Your task to perform on an android device: Show the shopping cart on walmart. Image 0: 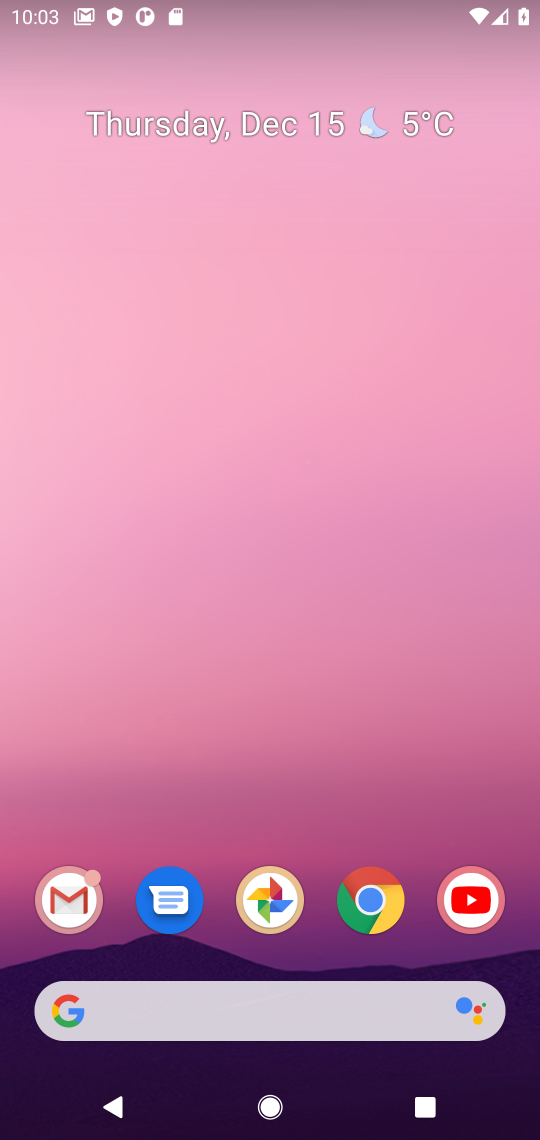
Step 0: click (385, 916)
Your task to perform on an android device: Show the shopping cart on walmart. Image 1: 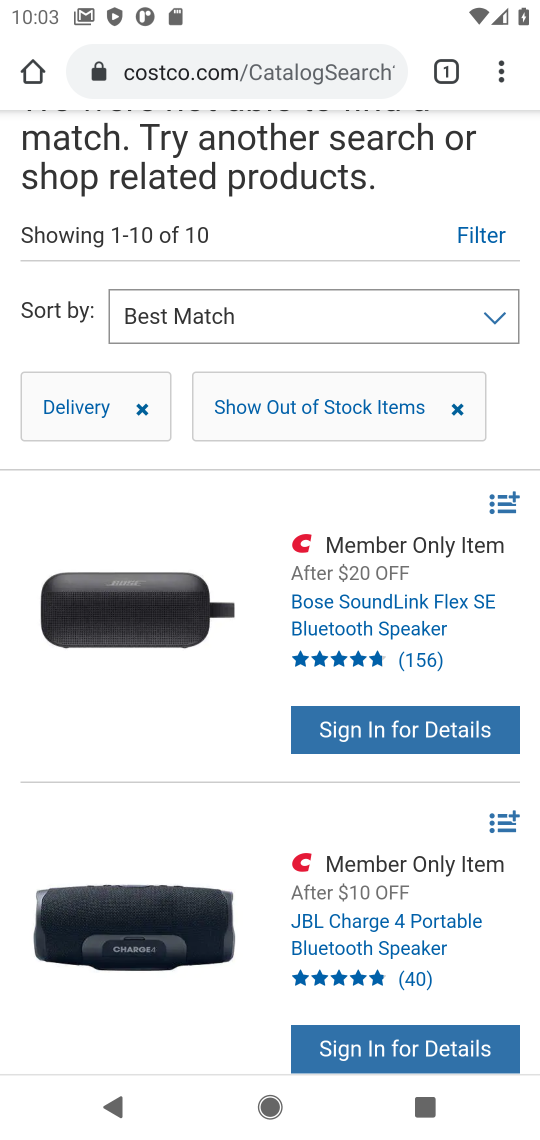
Step 1: click (385, 916)
Your task to perform on an android device: Show the shopping cart on walmart. Image 2: 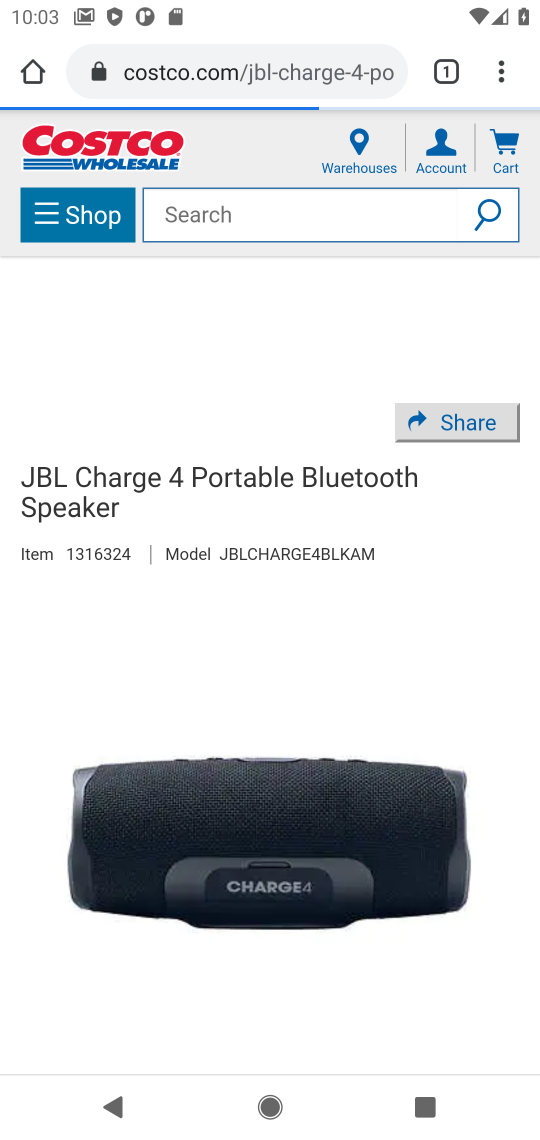
Step 2: click (218, 68)
Your task to perform on an android device: Show the shopping cart on walmart. Image 3: 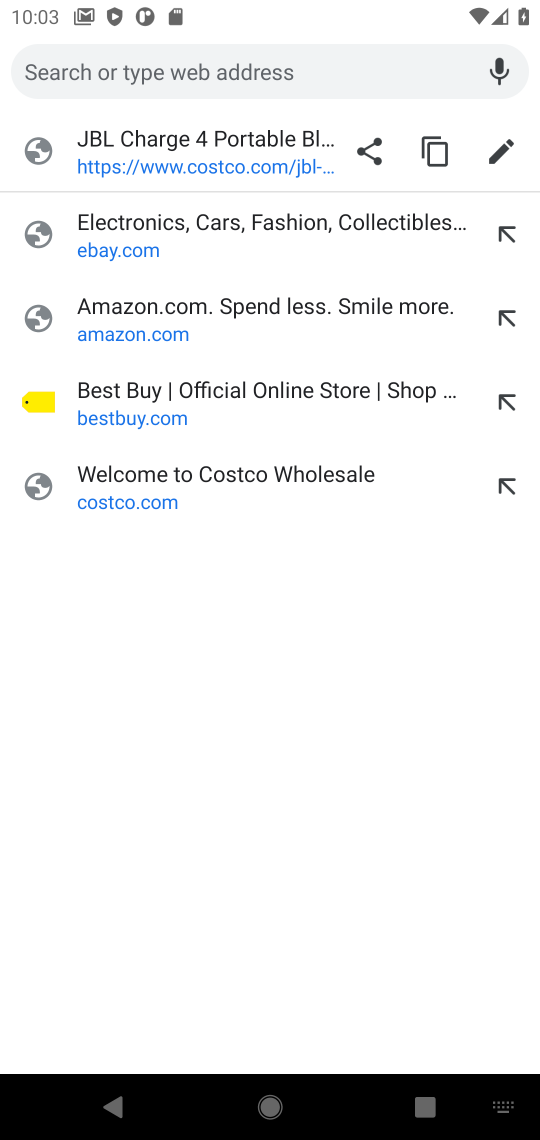
Step 3: type "walmart"
Your task to perform on an android device: Show the shopping cart on walmart. Image 4: 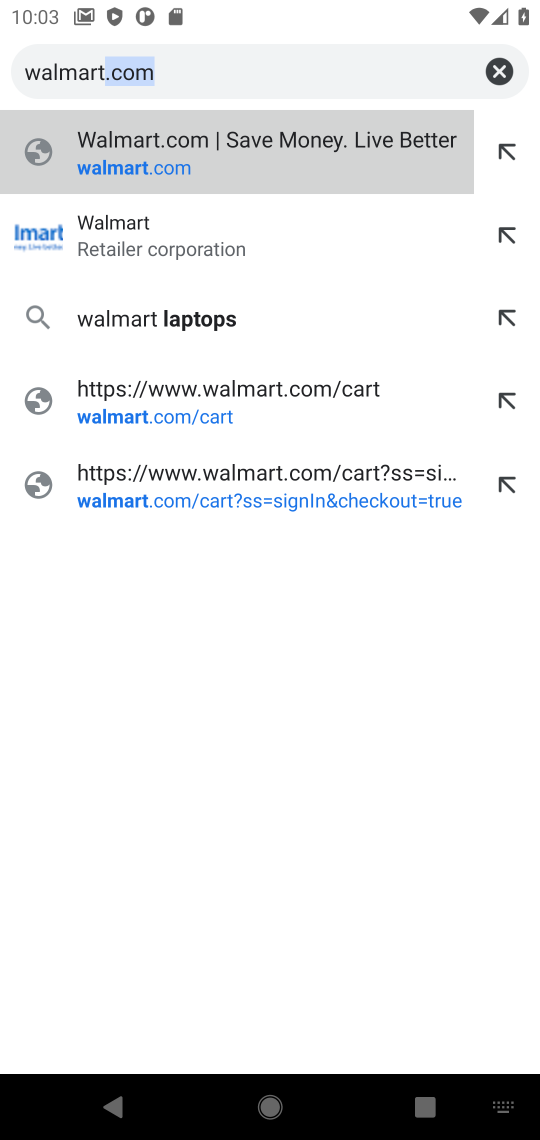
Step 4: click (156, 176)
Your task to perform on an android device: Show the shopping cart on walmart. Image 5: 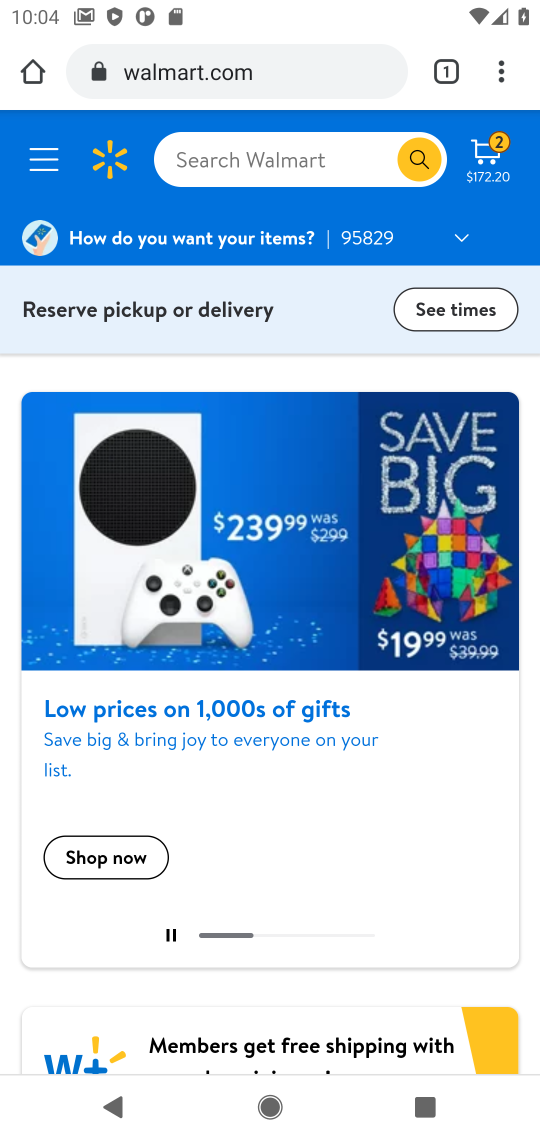
Step 5: drag from (289, 887) to (196, 824)
Your task to perform on an android device: Show the shopping cart on walmart. Image 6: 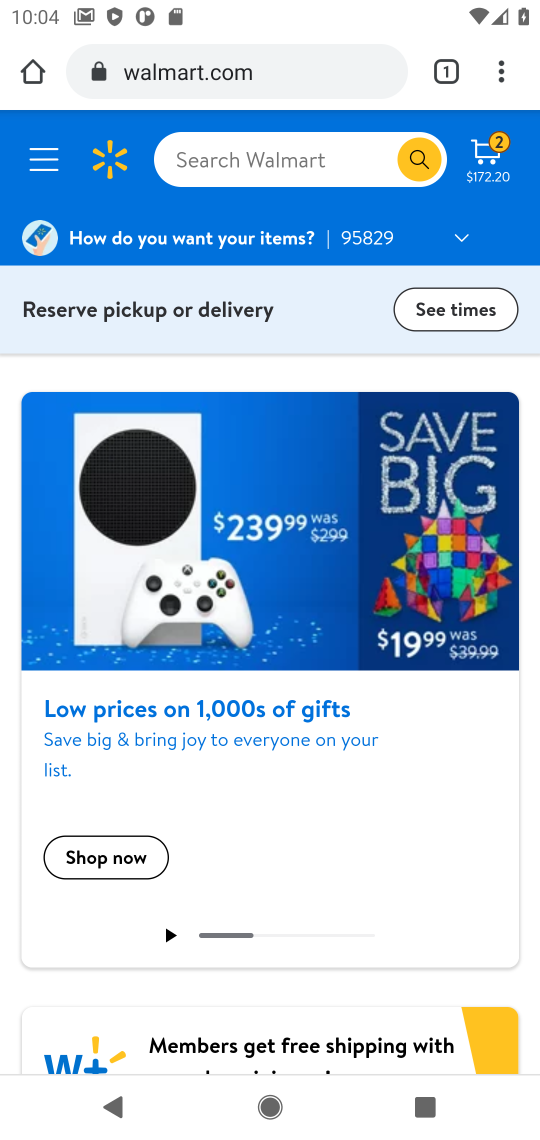
Step 6: click (496, 148)
Your task to perform on an android device: Show the shopping cart on walmart. Image 7: 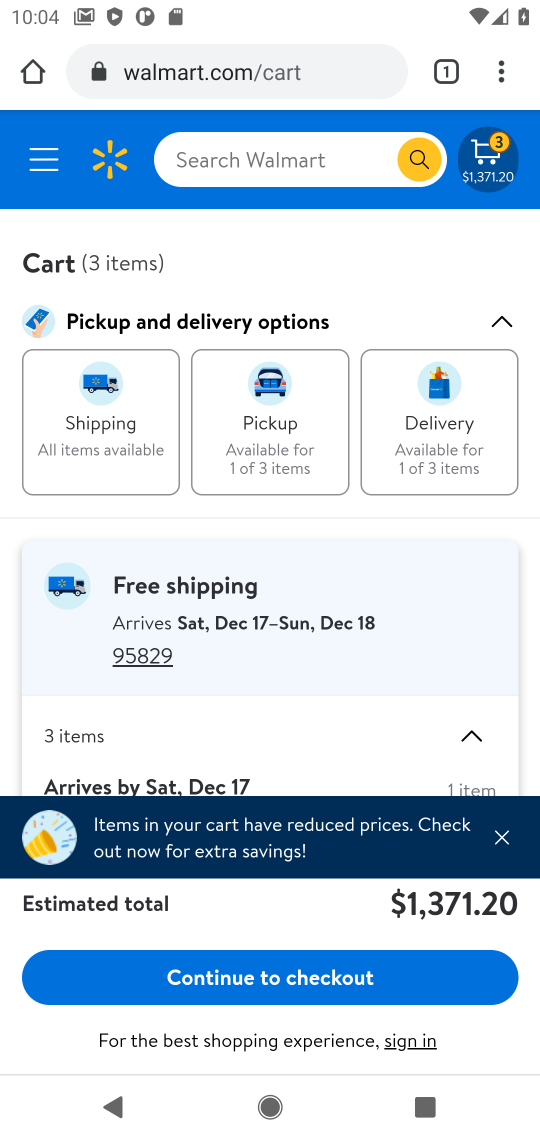
Step 7: task complete